Your task to perform on an android device: Go to location settings Image 0: 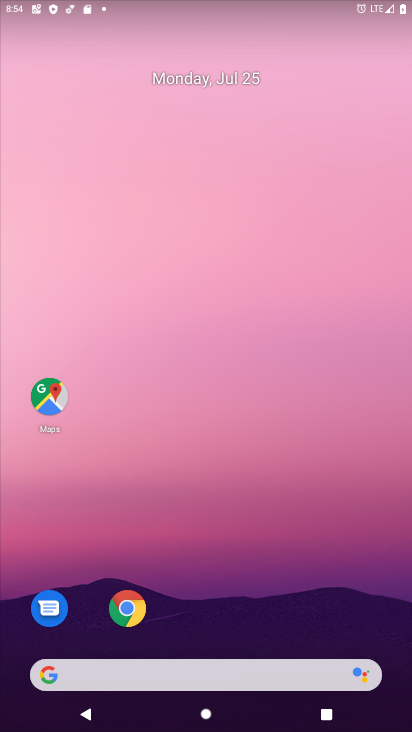
Step 0: drag from (244, 729) to (221, 133)
Your task to perform on an android device: Go to location settings Image 1: 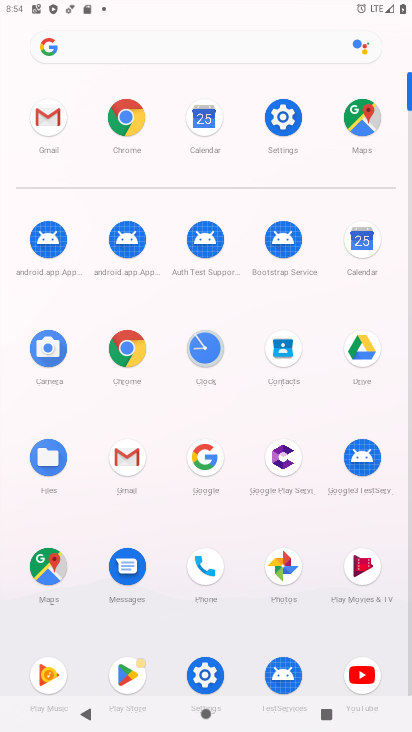
Step 1: click (286, 119)
Your task to perform on an android device: Go to location settings Image 2: 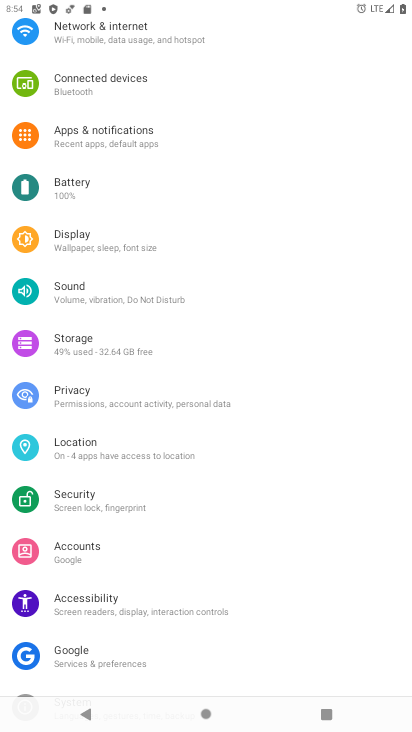
Step 2: click (66, 447)
Your task to perform on an android device: Go to location settings Image 3: 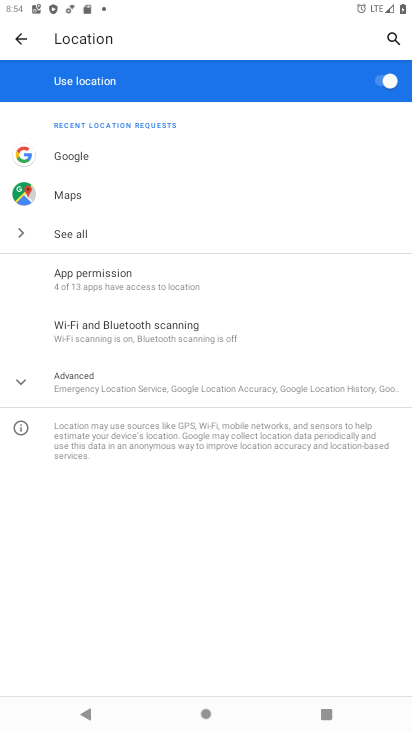
Step 3: task complete